Your task to perform on an android device: delete a single message in the gmail app Image 0: 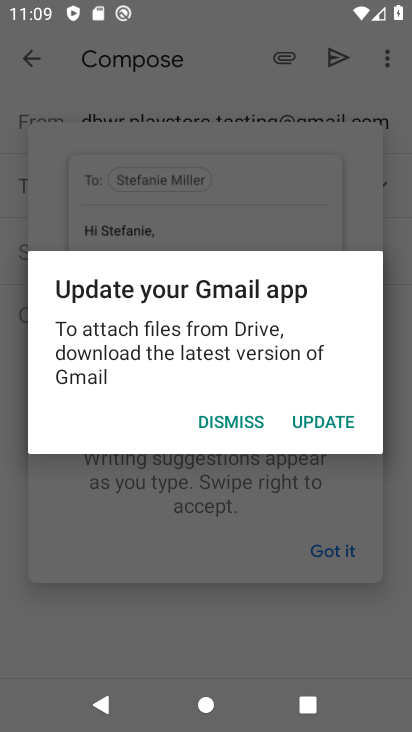
Step 0: press back button
Your task to perform on an android device: delete a single message in the gmail app Image 1: 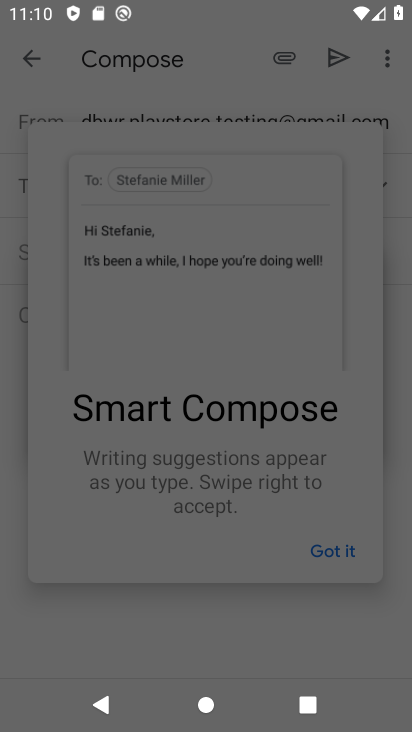
Step 1: press back button
Your task to perform on an android device: delete a single message in the gmail app Image 2: 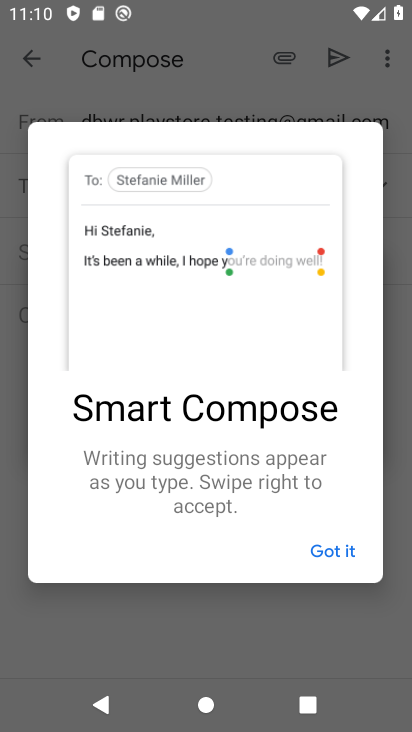
Step 2: press back button
Your task to perform on an android device: delete a single message in the gmail app Image 3: 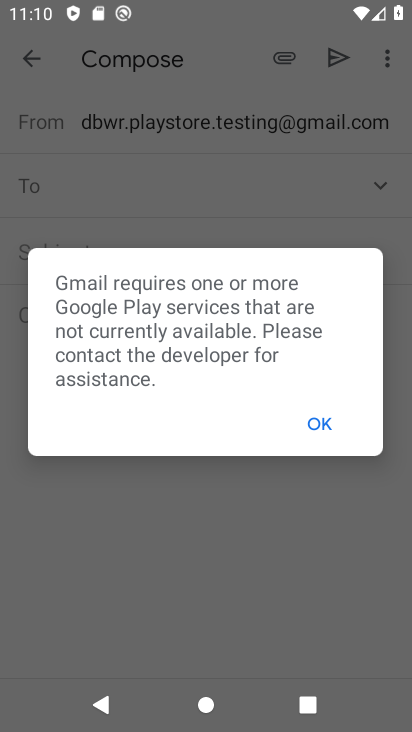
Step 3: press back button
Your task to perform on an android device: delete a single message in the gmail app Image 4: 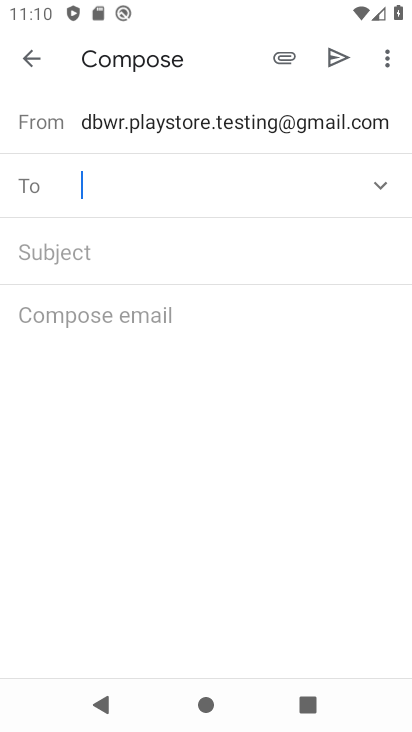
Step 4: press back button
Your task to perform on an android device: delete a single message in the gmail app Image 5: 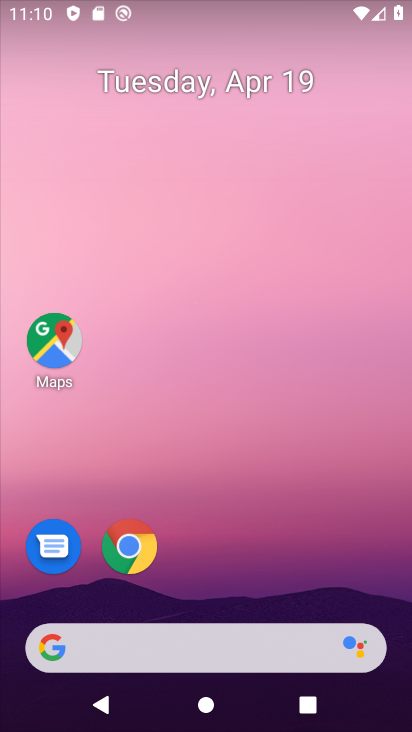
Step 5: click (315, 62)
Your task to perform on an android device: delete a single message in the gmail app Image 6: 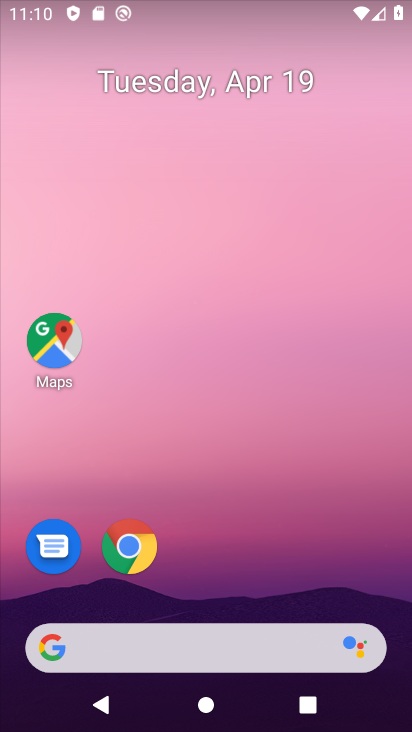
Step 6: drag from (235, 510) to (324, 143)
Your task to perform on an android device: delete a single message in the gmail app Image 7: 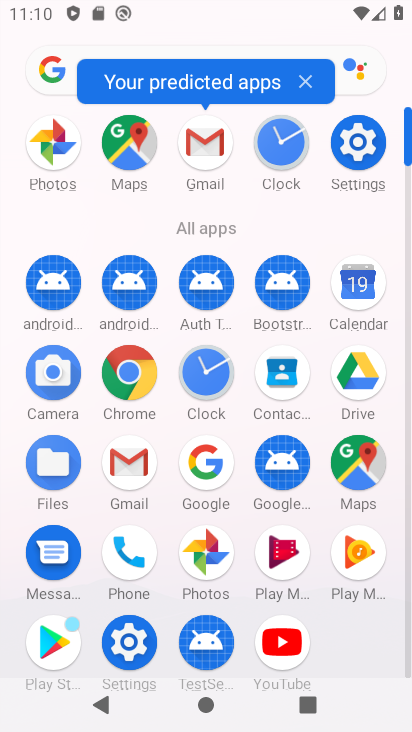
Step 7: click (126, 466)
Your task to perform on an android device: delete a single message in the gmail app Image 8: 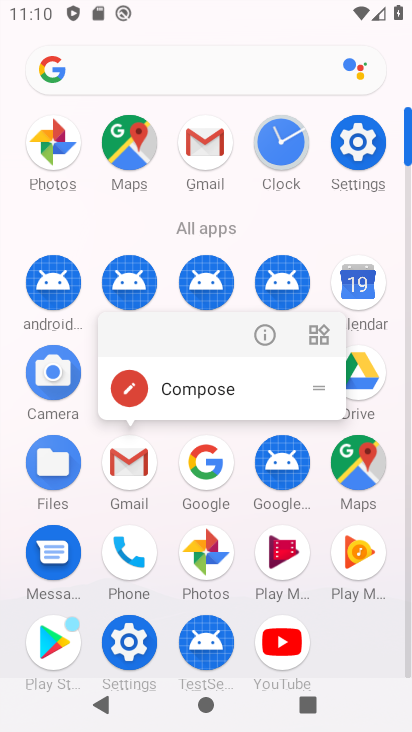
Step 8: click (129, 462)
Your task to perform on an android device: delete a single message in the gmail app Image 9: 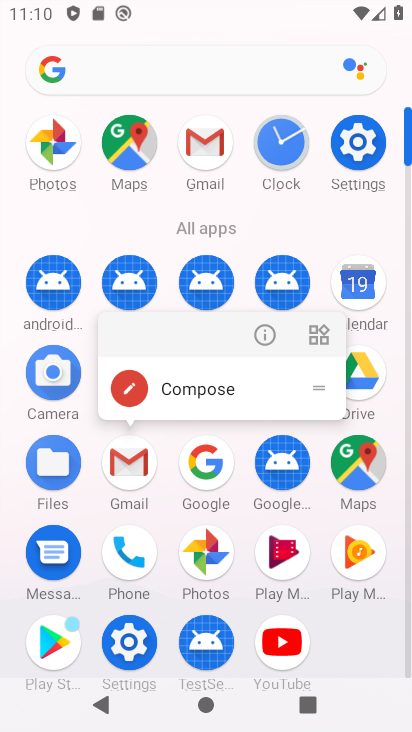
Step 9: click (131, 460)
Your task to perform on an android device: delete a single message in the gmail app Image 10: 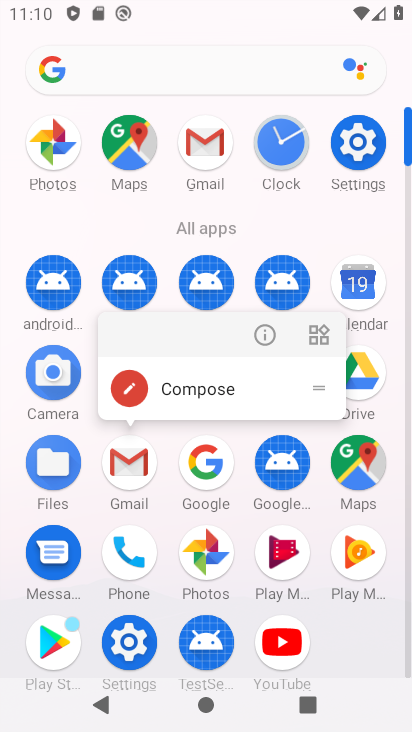
Step 10: click (131, 460)
Your task to perform on an android device: delete a single message in the gmail app Image 11: 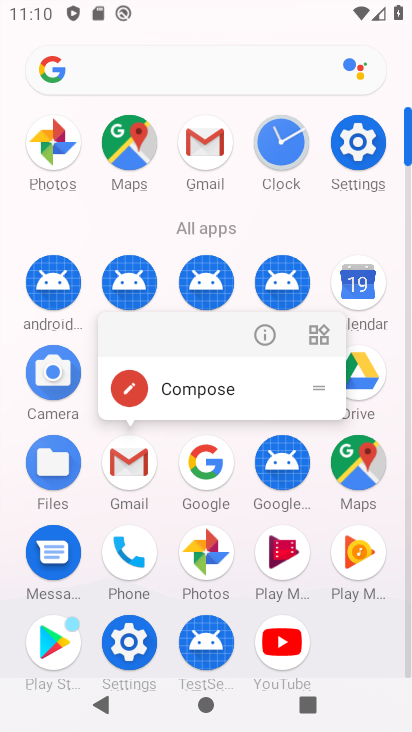
Step 11: click (133, 475)
Your task to perform on an android device: delete a single message in the gmail app Image 12: 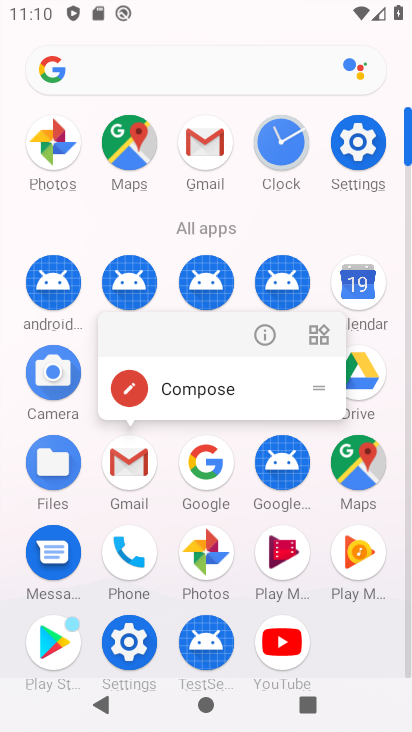
Step 12: click (140, 460)
Your task to perform on an android device: delete a single message in the gmail app Image 13: 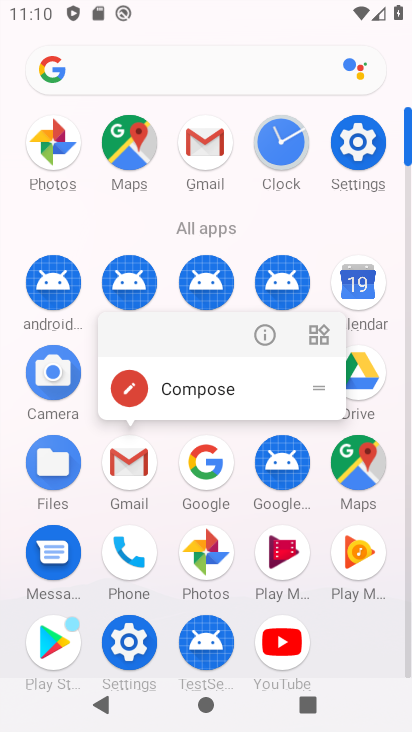
Step 13: click (135, 465)
Your task to perform on an android device: delete a single message in the gmail app Image 14: 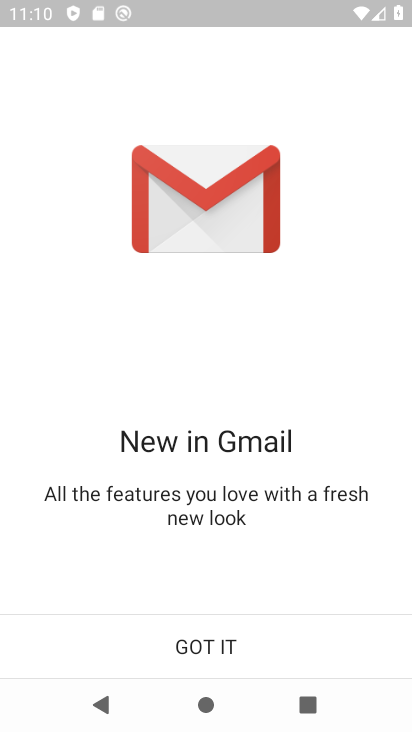
Step 14: click (206, 650)
Your task to perform on an android device: delete a single message in the gmail app Image 15: 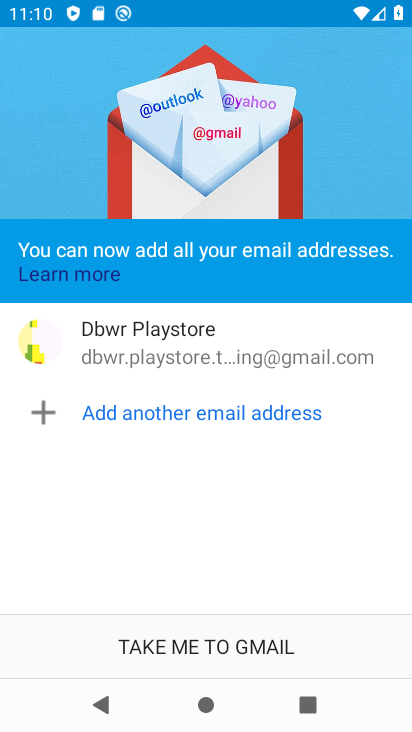
Step 15: click (223, 638)
Your task to perform on an android device: delete a single message in the gmail app Image 16: 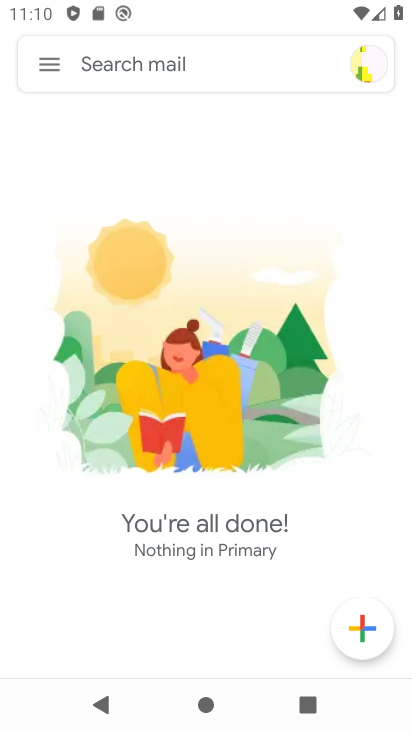
Step 16: click (53, 72)
Your task to perform on an android device: delete a single message in the gmail app Image 17: 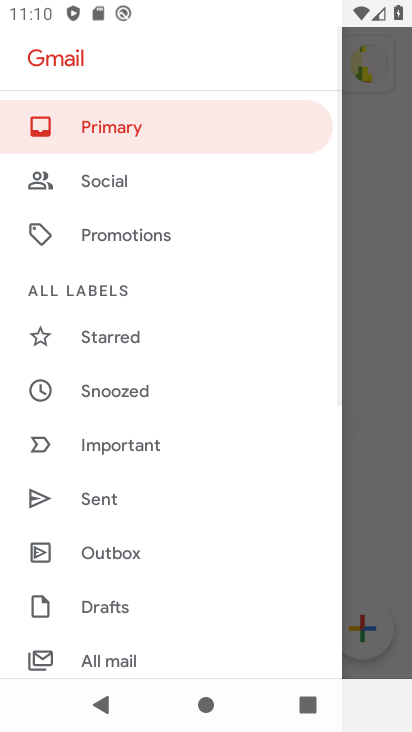
Step 17: click (135, 655)
Your task to perform on an android device: delete a single message in the gmail app Image 18: 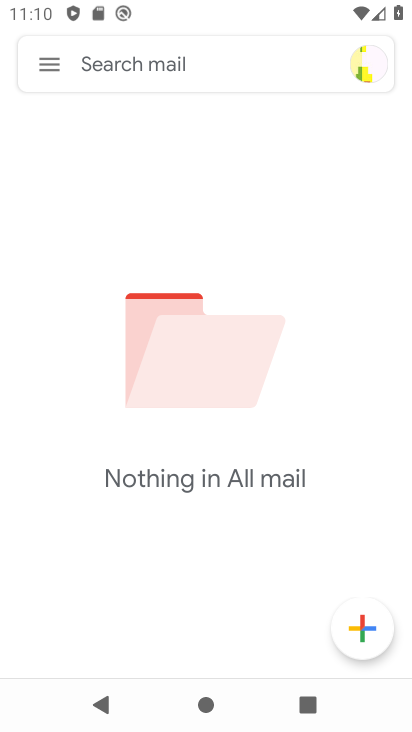
Step 18: task complete